Your task to perform on an android device: Go to wifi settings Image 0: 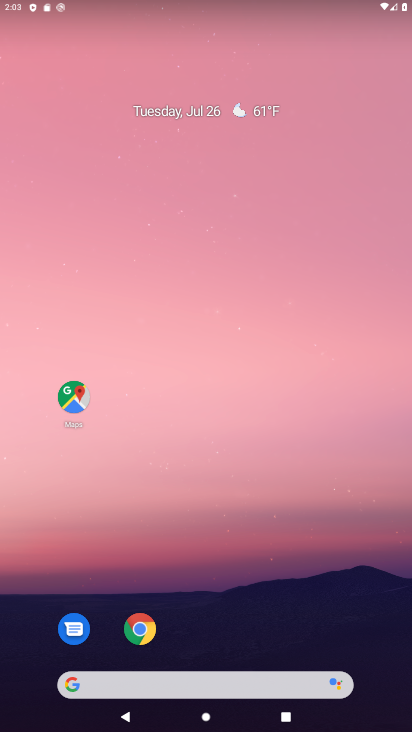
Step 0: drag from (210, 574) to (208, 48)
Your task to perform on an android device: Go to wifi settings Image 1: 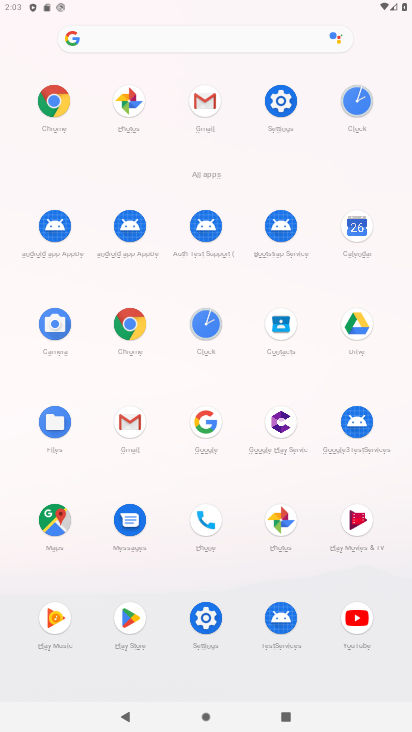
Step 1: click (279, 96)
Your task to perform on an android device: Go to wifi settings Image 2: 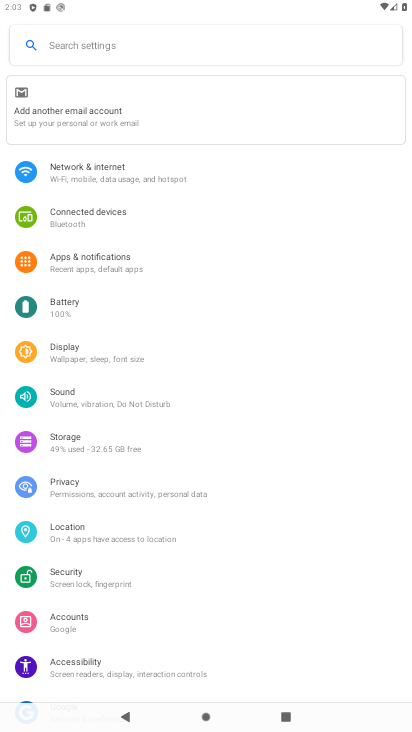
Step 2: click (89, 163)
Your task to perform on an android device: Go to wifi settings Image 3: 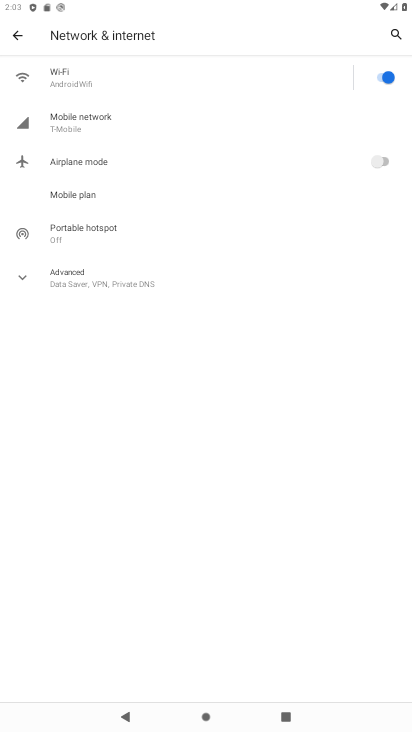
Step 3: click (75, 69)
Your task to perform on an android device: Go to wifi settings Image 4: 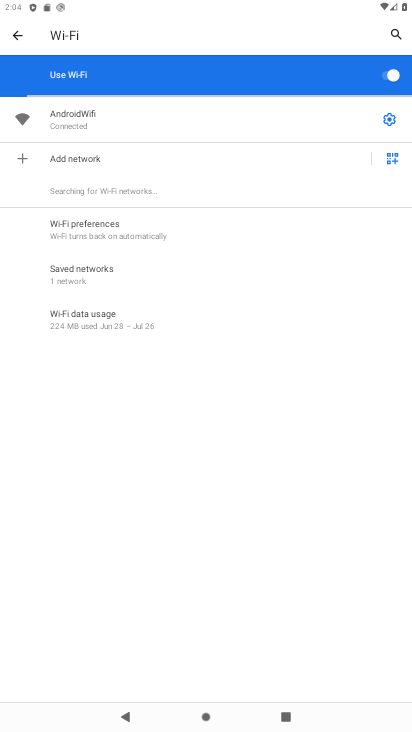
Step 4: task complete